Your task to perform on an android device: turn on the 12-hour format for clock Image 0: 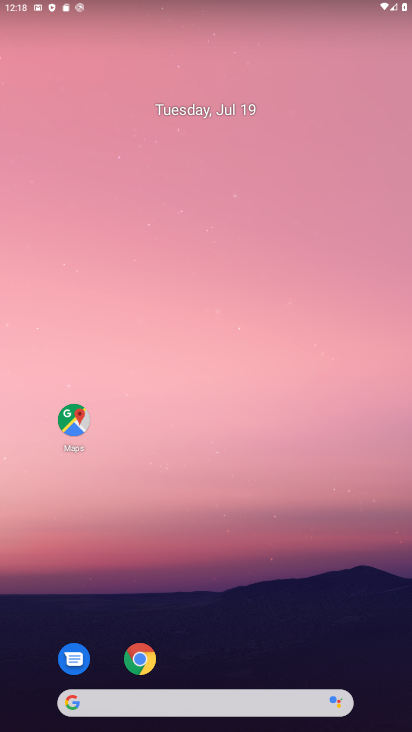
Step 0: drag from (187, 696) to (172, 18)
Your task to perform on an android device: turn on the 12-hour format for clock Image 1: 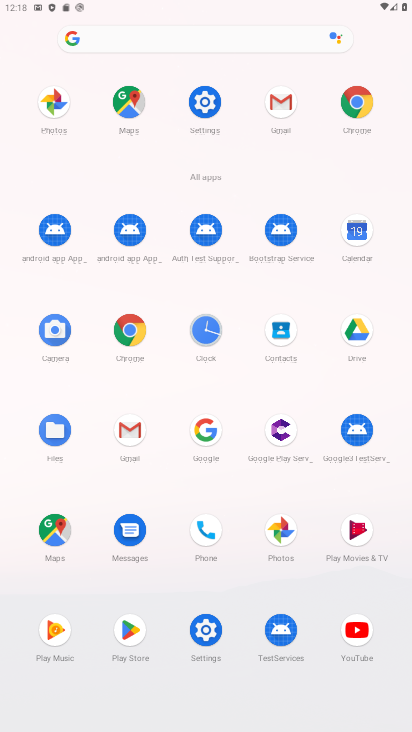
Step 1: click (206, 631)
Your task to perform on an android device: turn on the 12-hour format for clock Image 2: 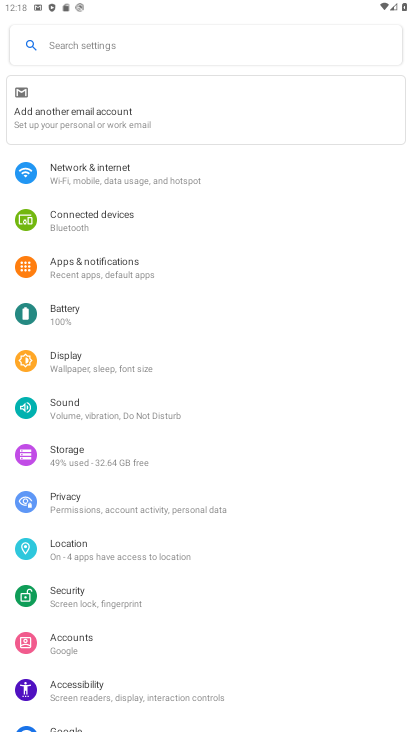
Step 2: drag from (122, 645) to (154, 193)
Your task to perform on an android device: turn on the 12-hour format for clock Image 3: 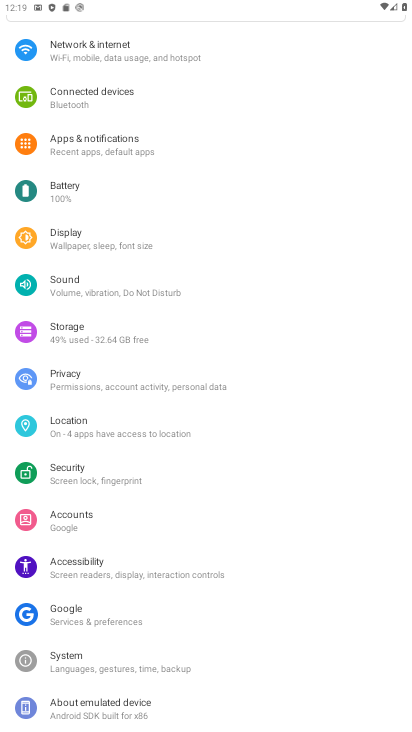
Step 3: click (85, 670)
Your task to perform on an android device: turn on the 12-hour format for clock Image 4: 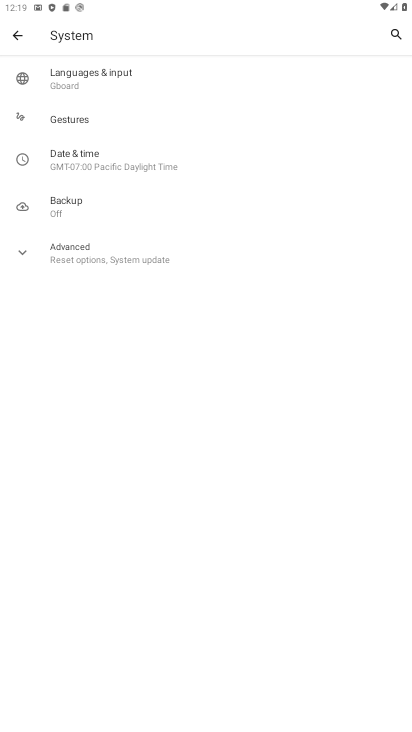
Step 4: click (109, 153)
Your task to perform on an android device: turn on the 12-hour format for clock Image 5: 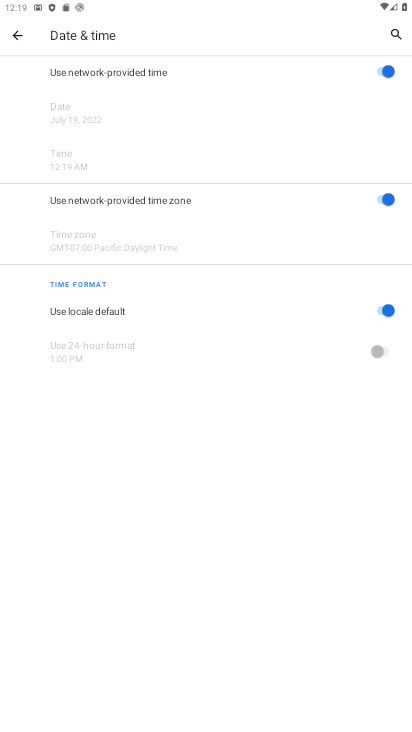
Step 5: task complete